Your task to perform on an android device: Open Chrome and go to the settings page Image 0: 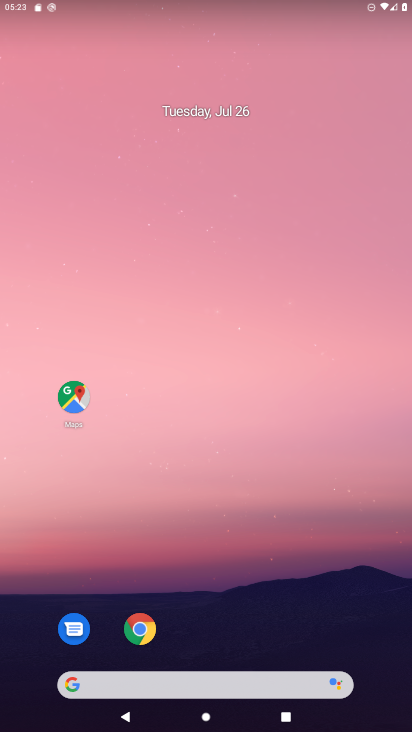
Step 0: click (139, 629)
Your task to perform on an android device: Open Chrome and go to the settings page Image 1: 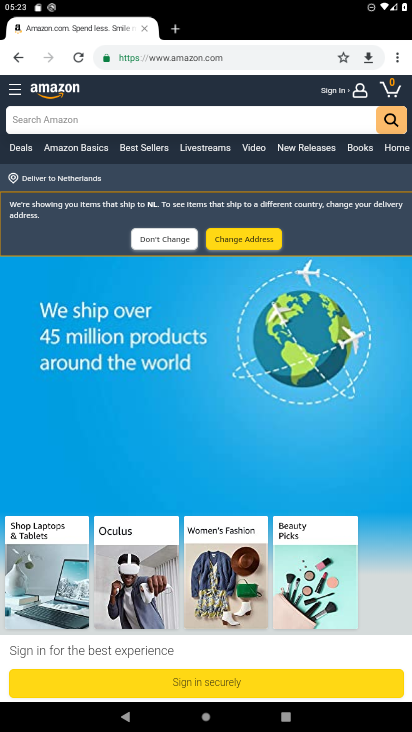
Step 1: click (397, 60)
Your task to perform on an android device: Open Chrome and go to the settings page Image 2: 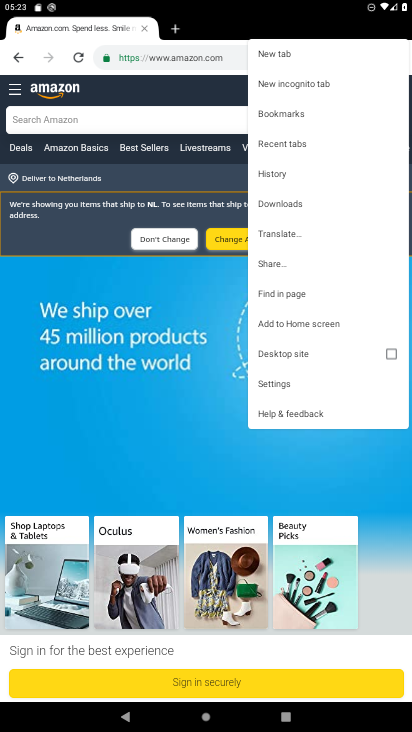
Step 2: click (272, 385)
Your task to perform on an android device: Open Chrome and go to the settings page Image 3: 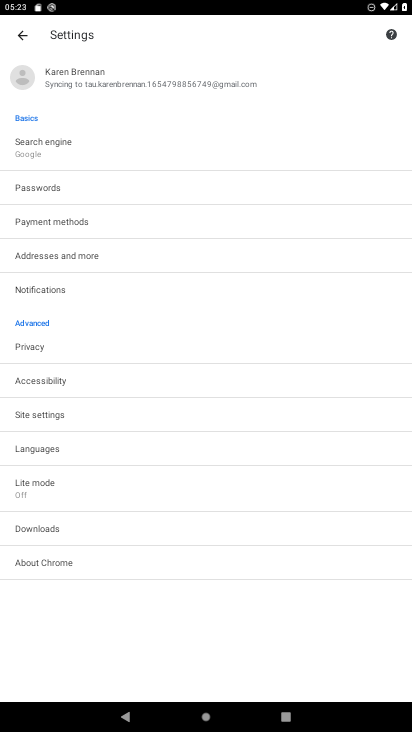
Step 3: task complete